Your task to perform on an android device: find snoozed emails in the gmail app Image 0: 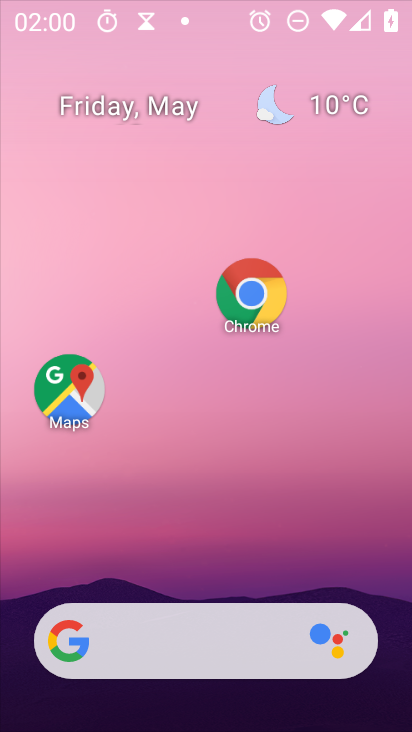
Step 0: press home button
Your task to perform on an android device: find snoozed emails in the gmail app Image 1: 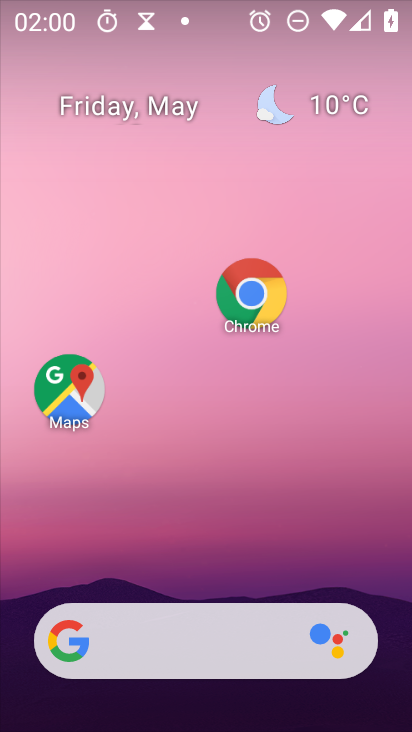
Step 1: drag from (205, 655) to (353, 184)
Your task to perform on an android device: find snoozed emails in the gmail app Image 2: 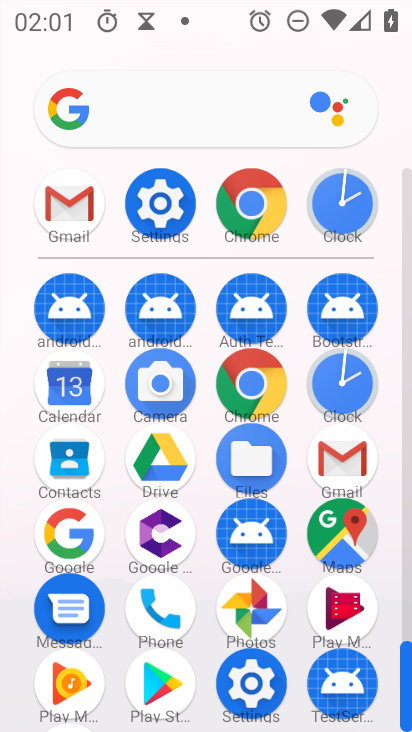
Step 2: click (59, 222)
Your task to perform on an android device: find snoozed emails in the gmail app Image 3: 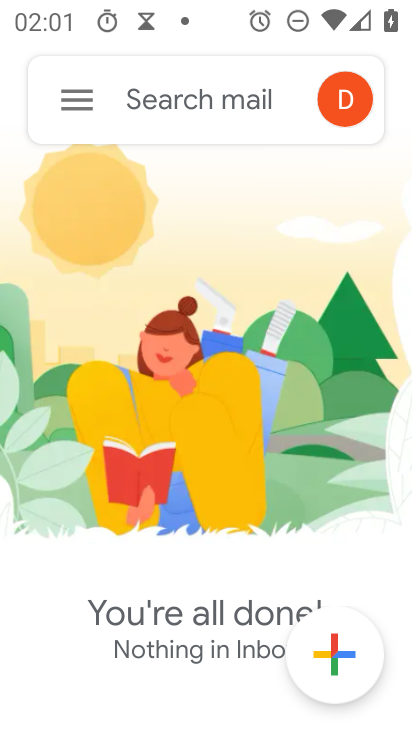
Step 3: click (64, 108)
Your task to perform on an android device: find snoozed emails in the gmail app Image 4: 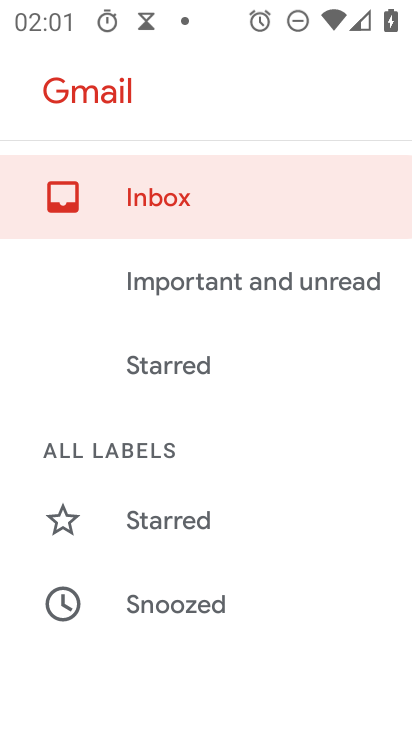
Step 4: click (197, 611)
Your task to perform on an android device: find snoozed emails in the gmail app Image 5: 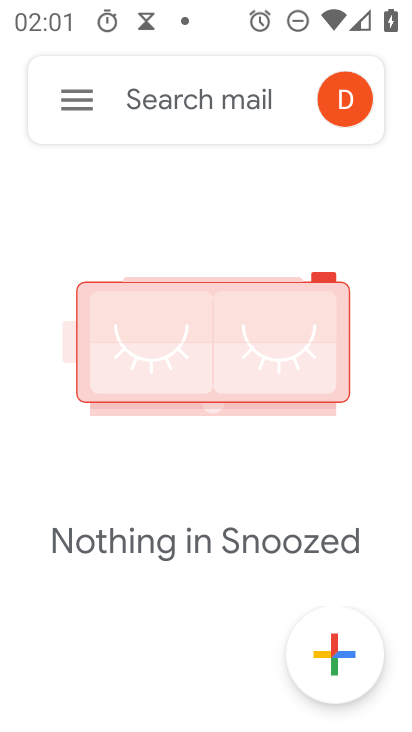
Step 5: task complete